Your task to perform on an android device: Show me popular games on the Play Store Image 0: 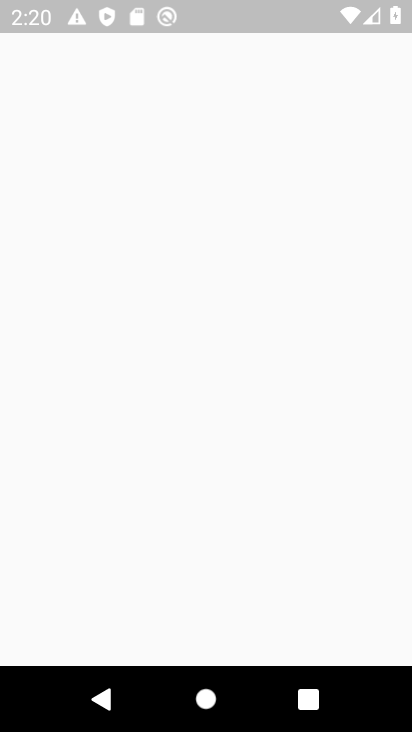
Step 0: press home button
Your task to perform on an android device: Show me popular games on the Play Store Image 1: 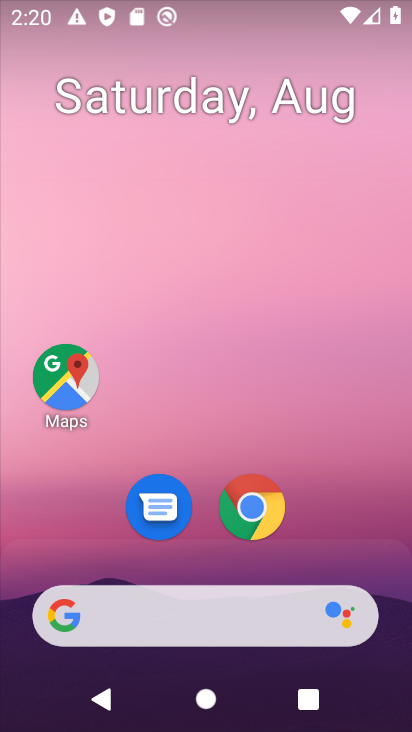
Step 1: drag from (186, 529) to (170, 15)
Your task to perform on an android device: Show me popular games on the Play Store Image 2: 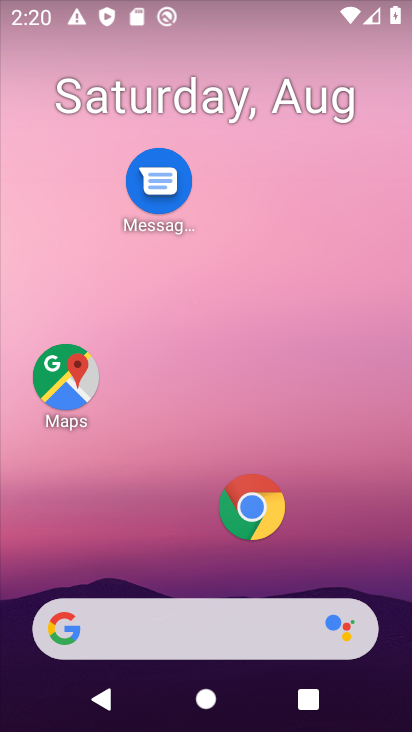
Step 2: click (188, 565)
Your task to perform on an android device: Show me popular games on the Play Store Image 3: 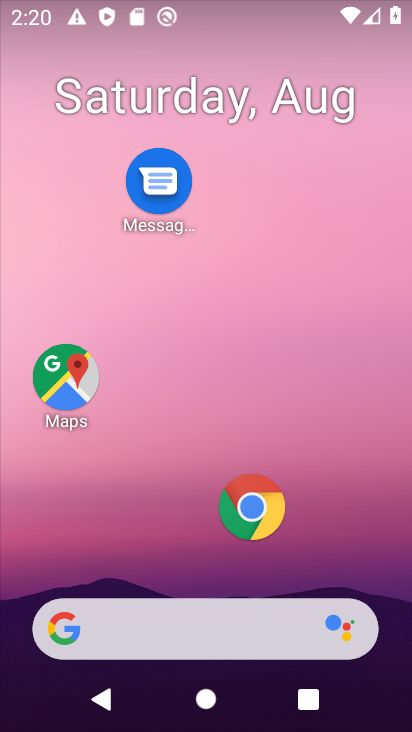
Step 3: drag from (178, 561) to (236, 6)
Your task to perform on an android device: Show me popular games on the Play Store Image 4: 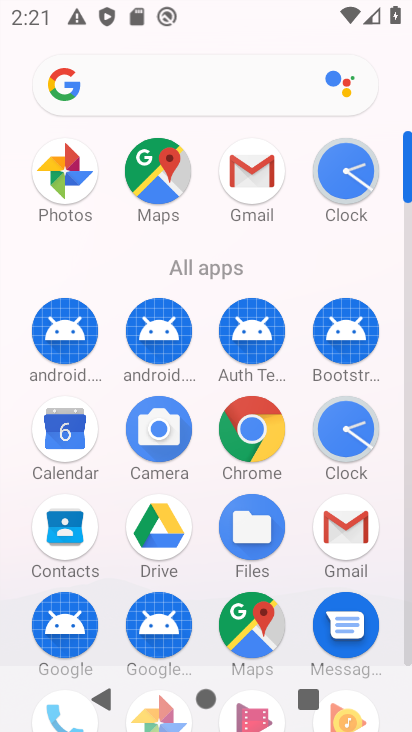
Step 4: drag from (210, 580) to (212, 35)
Your task to perform on an android device: Show me popular games on the Play Store Image 5: 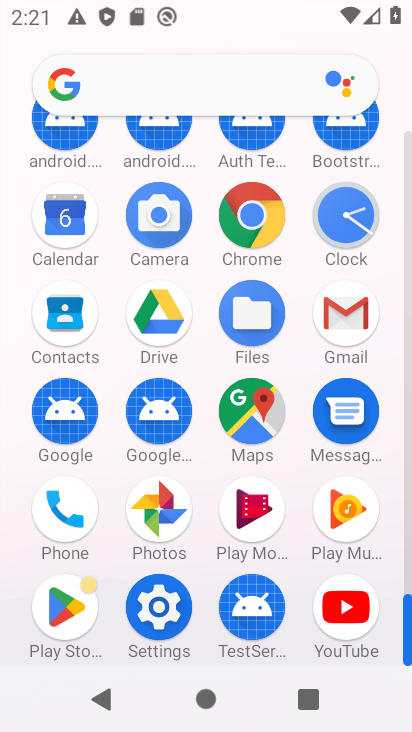
Step 5: click (60, 609)
Your task to perform on an android device: Show me popular games on the Play Store Image 6: 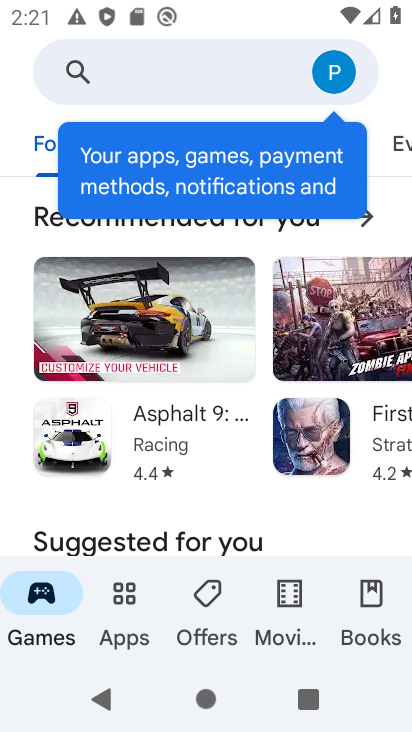
Step 6: click (133, 618)
Your task to perform on an android device: Show me popular games on the Play Store Image 7: 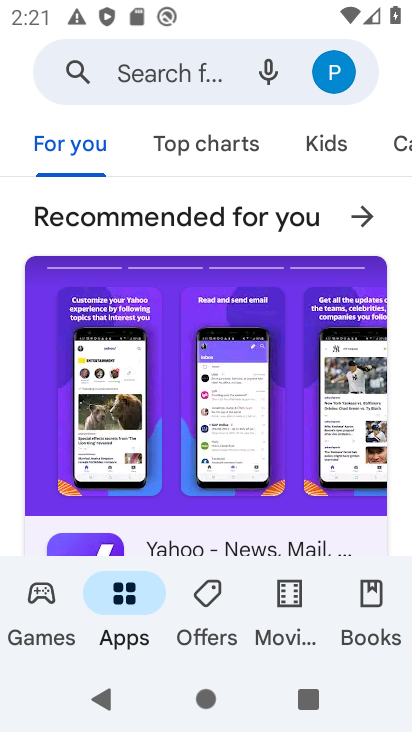
Step 7: drag from (296, 154) to (143, 138)
Your task to perform on an android device: Show me popular games on the Play Store Image 8: 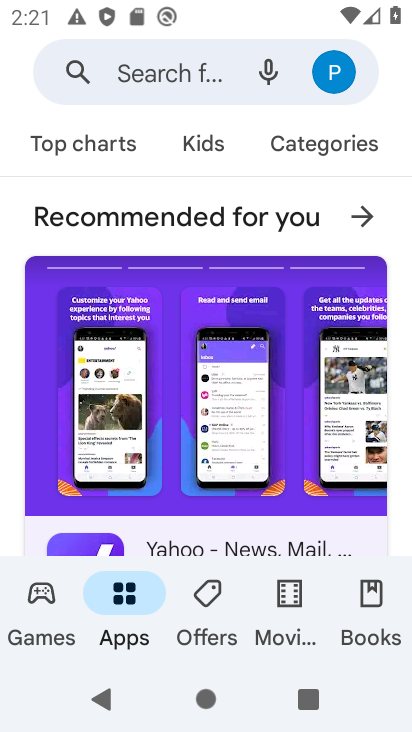
Step 8: click (27, 630)
Your task to perform on an android device: Show me popular games on the Play Store Image 9: 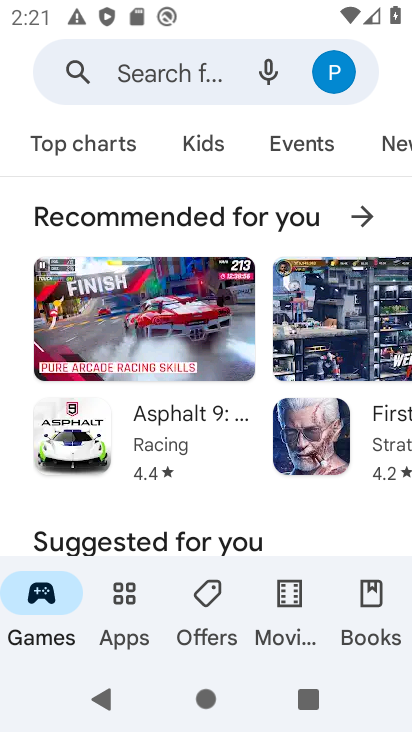
Step 9: click (93, 146)
Your task to perform on an android device: Show me popular games on the Play Store Image 10: 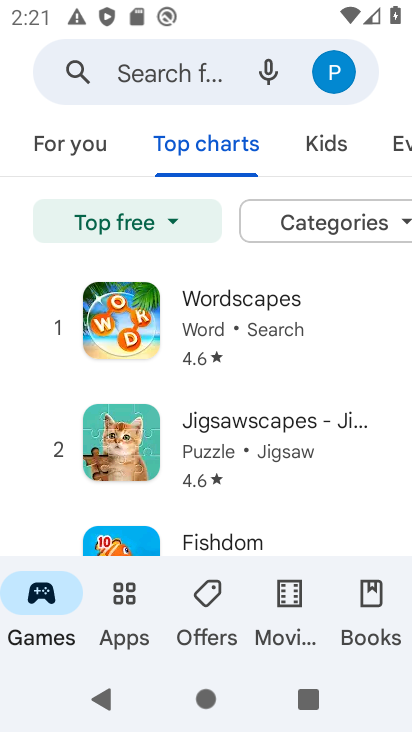
Step 10: task complete